Your task to perform on an android device: Open settings Image 0: 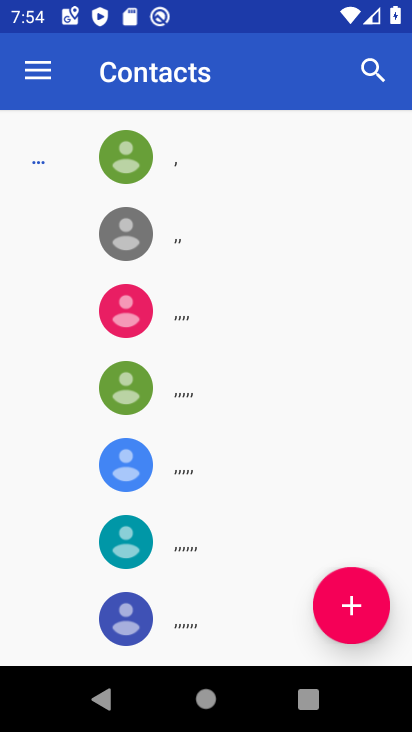
Step 0: press back button
Your task to perform on an android device: Open settings Image 1: 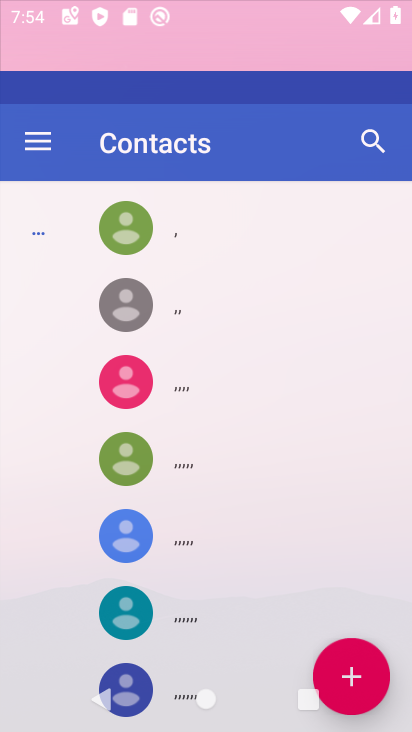
Step 1: press back button
Your task to perform on an android device: Open settings Image 2: 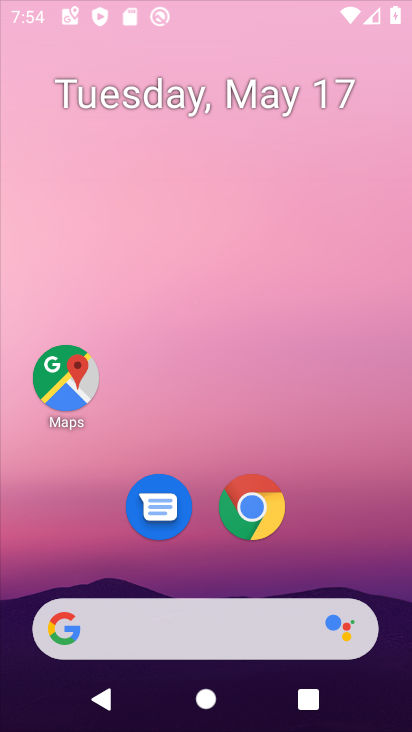
Step 2: press back button
Your task to perform on an android device: Open settings Image 3: 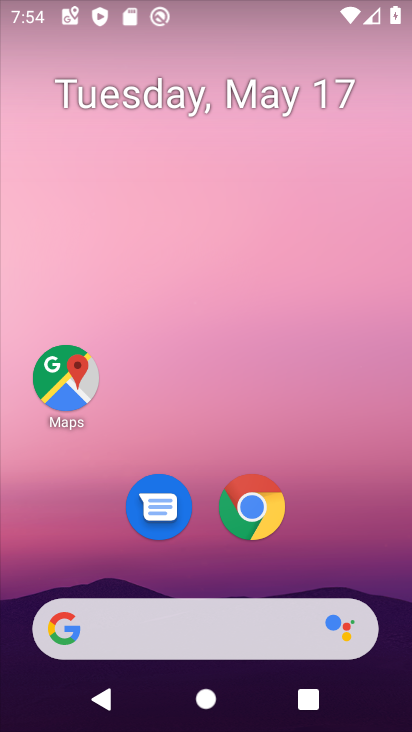
Step 3: drag from (363, 649) to (314, 190)
Your task to perform on an android device: Open settings Image 4: 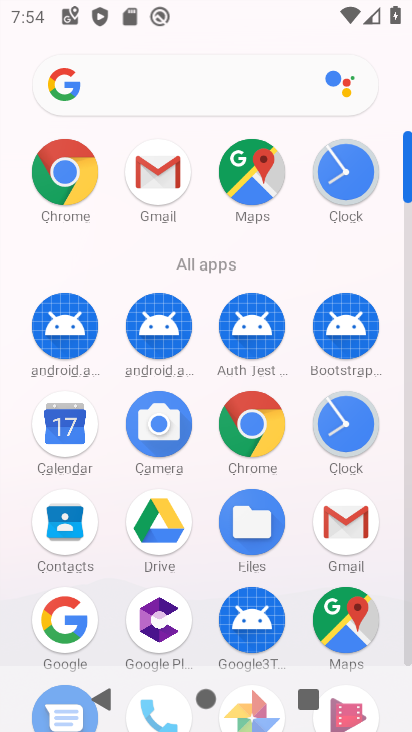
Step 4: drag from (204, 575) to (265, 227)
Your task to perform on an android device: Open settings Image 5: 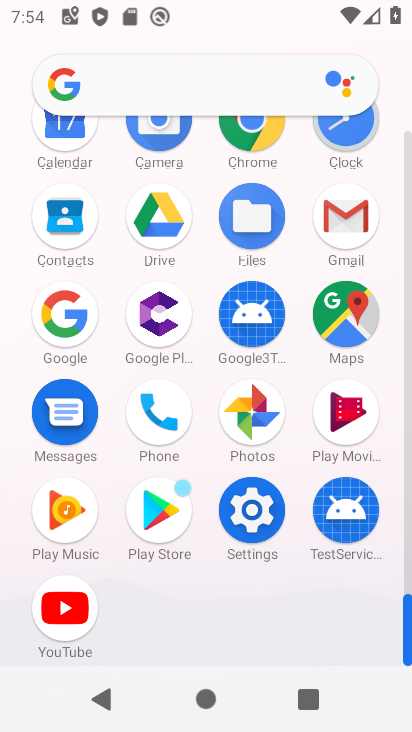
Step 5: click (252, 523)
Your task to perform on an android device: Open settings Image 6: 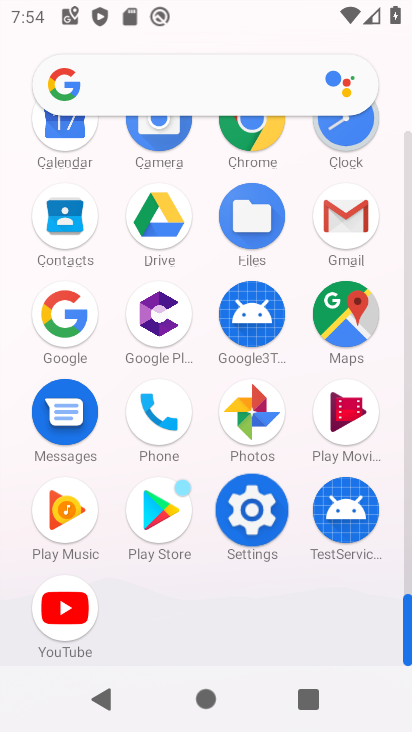
Step 6: click (252, 523)
Your task to perform on an android device: Open settings Image 7: 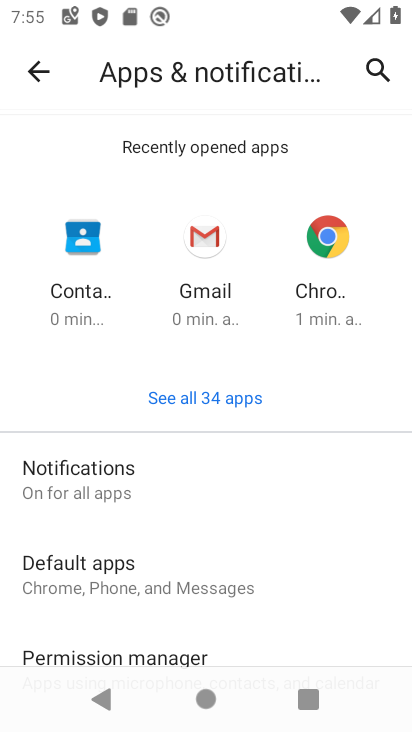
Step 7: click (41, 61)
Your task to perform on an android device: Open settings Image 8: 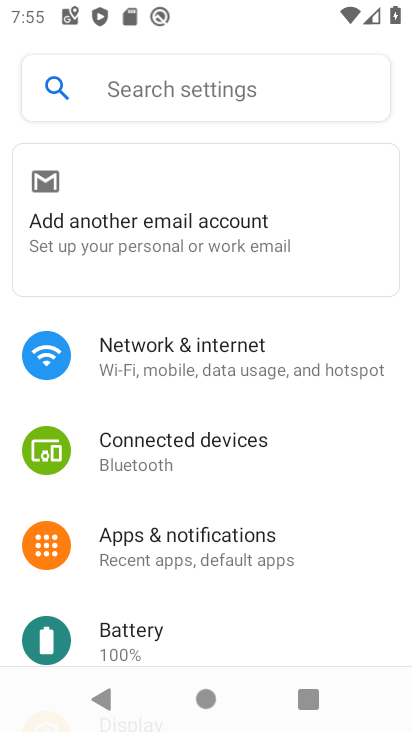
Step 8: task complete